Your task to perform on an android device: Is it going to rain today? Image 0: 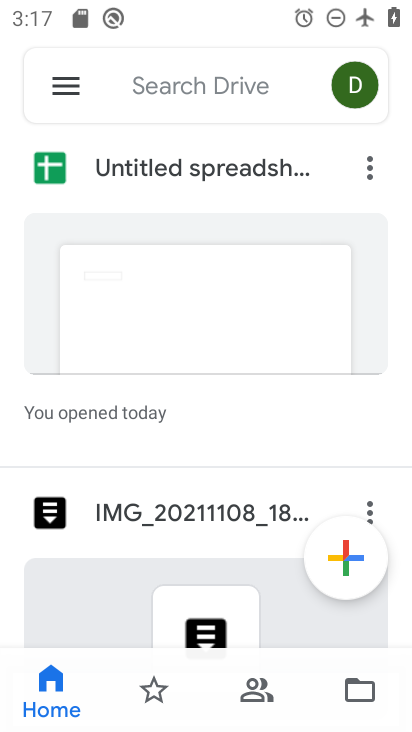
Step 0: press home button
Your task to perform on an android device: Is it going to rain today? Image 1: 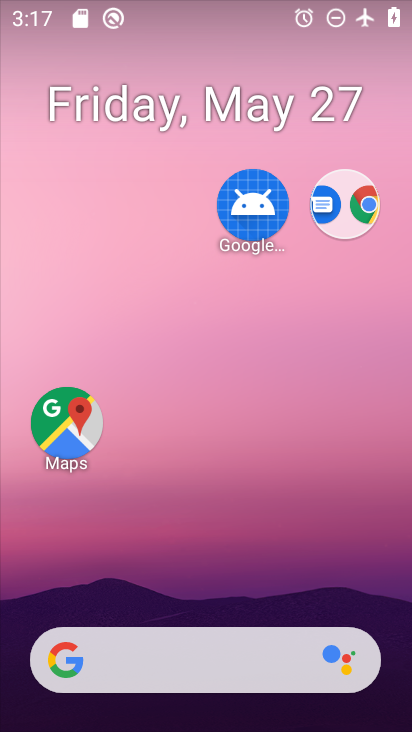
Step 1: drag from (161, 673) to (259, 181)
Your task to perform on an android device: Is it going to rain today? Image 2: 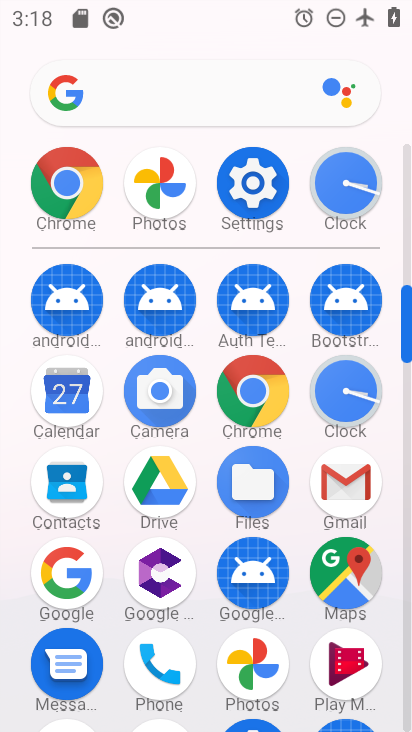
Step 2: click (71, 573)
Your task to perform on an android device: Is it going to rain today? Image 3: 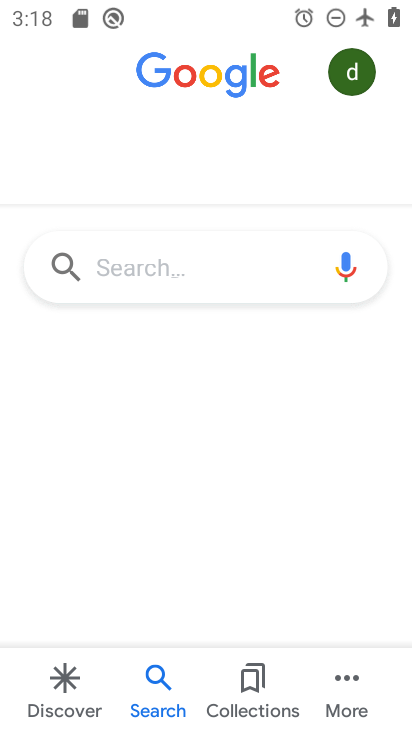
Step 3: click (239, 256)
Your task to perform on an android device: Is it going to rain today? Image 4: 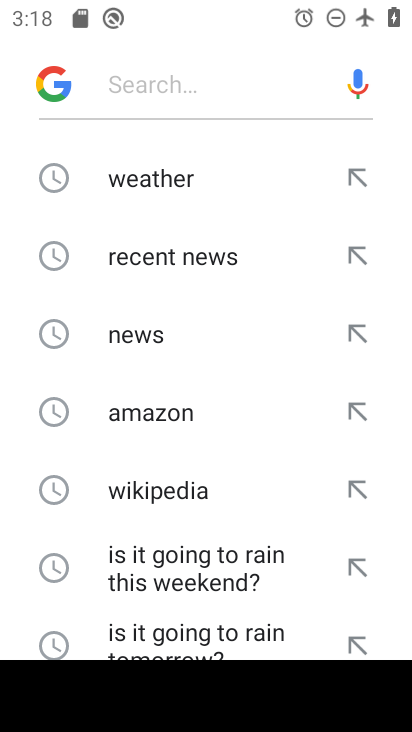
Step 4: click (202, 176)
Your task to perform on an android device: Is it going to rain today? Image 5: 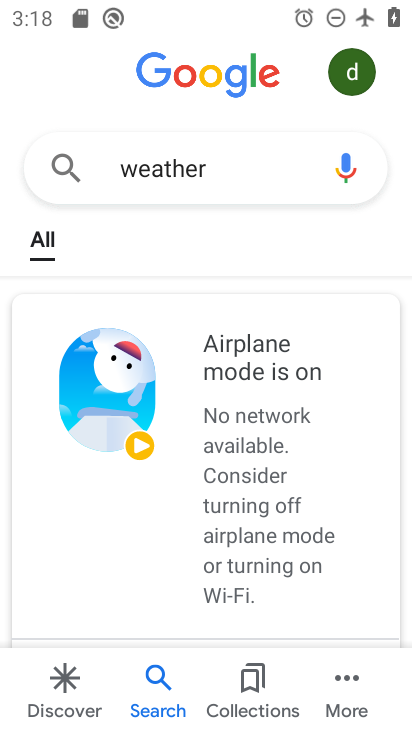
Step 5: task complete